Your task to perform on an android device: Open Maps and search for coffee Image 0: 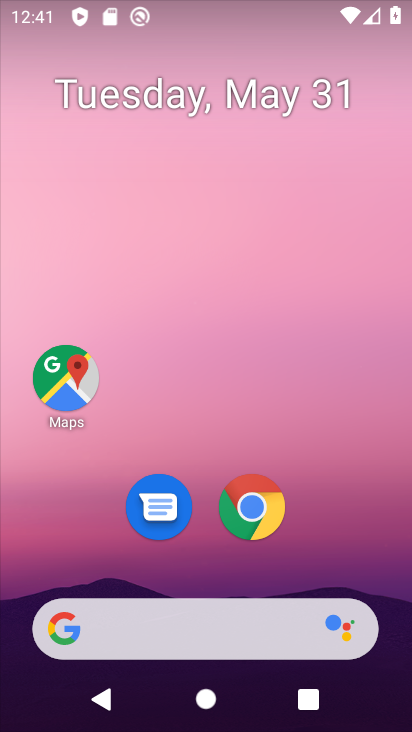
Step 0: click (57, 360)
Your task to perform on an android device: Open Maps and search for coffee Image 1: 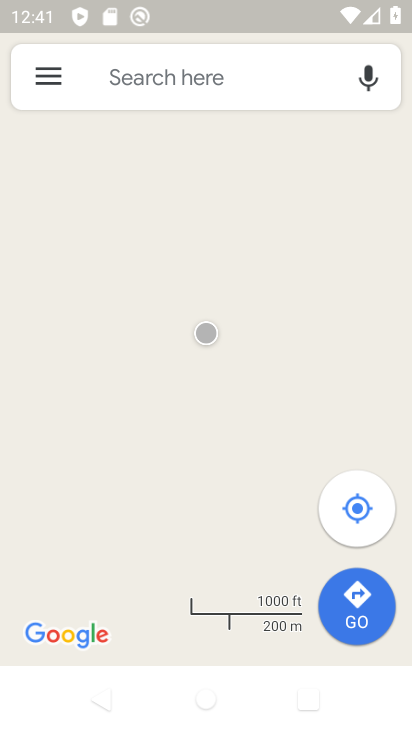
Step 1: click (39, 78)
Your task to perform on an android device: Open Maps and search for coffee Image 2: 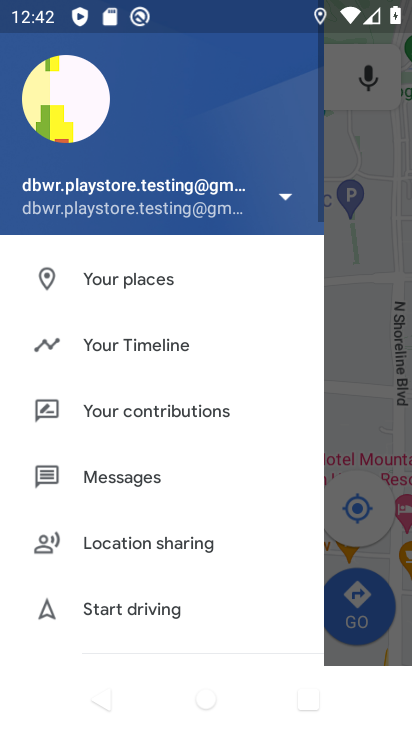
Step 2: drag from (141, 630) to (246, 53)
Your task to perform on an android device: Open Maps and search for coffee Image 3: 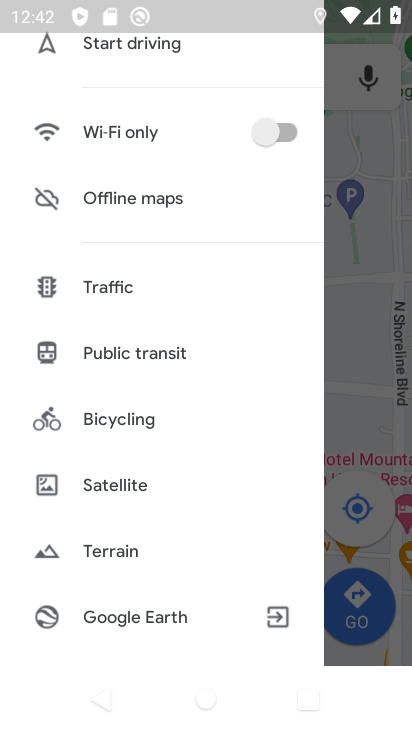
Step 3: click (394, 362)
Your task to perform on an android device: Open Maps and search for coffee Image 4: 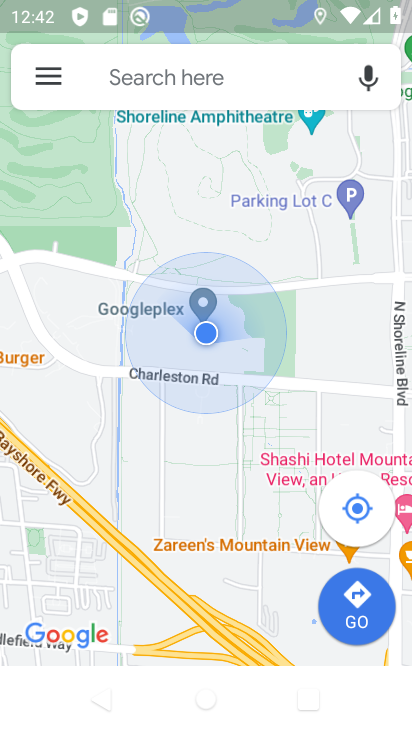
Step 4: click (201, 76)
Your task to perform on an android device: Open Maps and search for coffee Image 5: 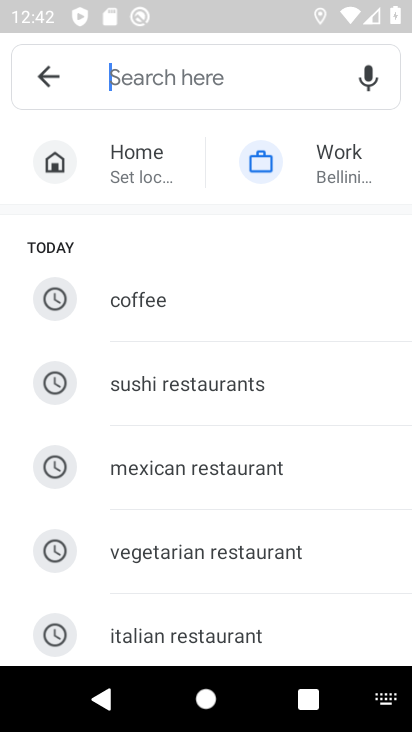
Step 5: type "coffee"
Your task to perform on an android device: Open Maps and search for coffee Image 6: 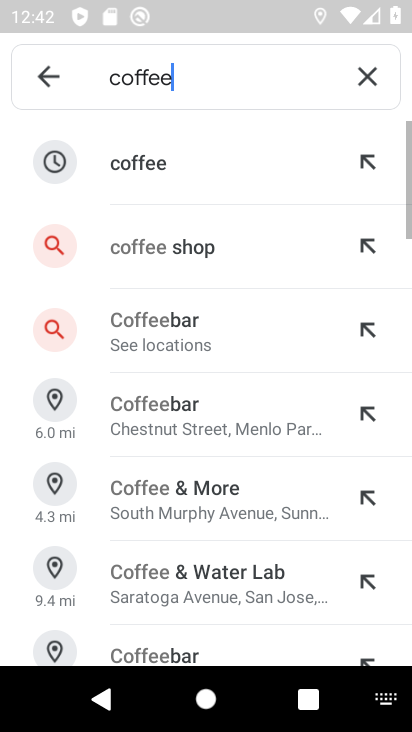
Step 6: click (216, 145)
Your task to perform on an android device: Open Maps and search for coffee Image 7: 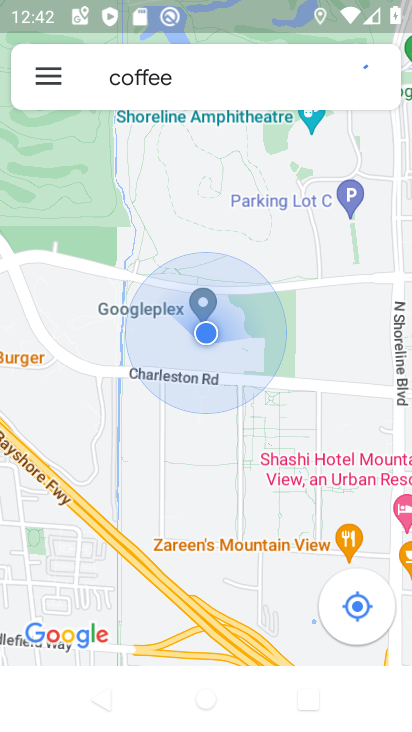
Step 7: task complete